Your task to perform on an android device: Open wifi settings Image 0: 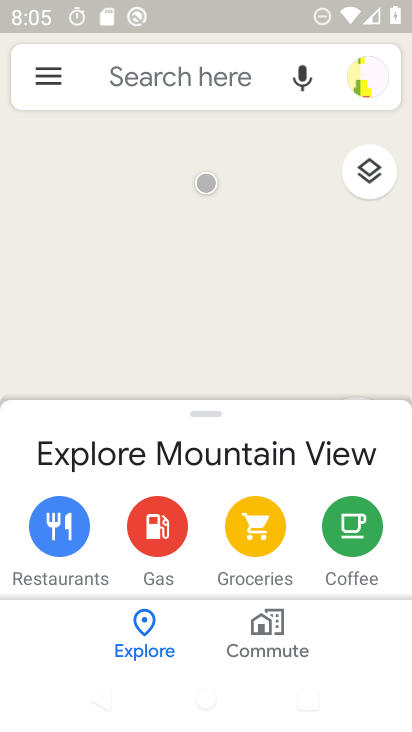
Step 0: press home button
Your task to perform on an android device: Open wifi settings Image 1: 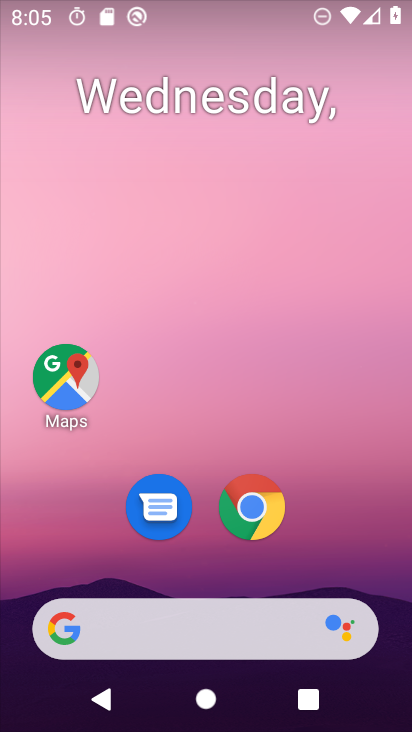
Step 1: drag from (258, 662) to (289, 237)
Your task to perform on an android device: Open wifi settings Image 2: 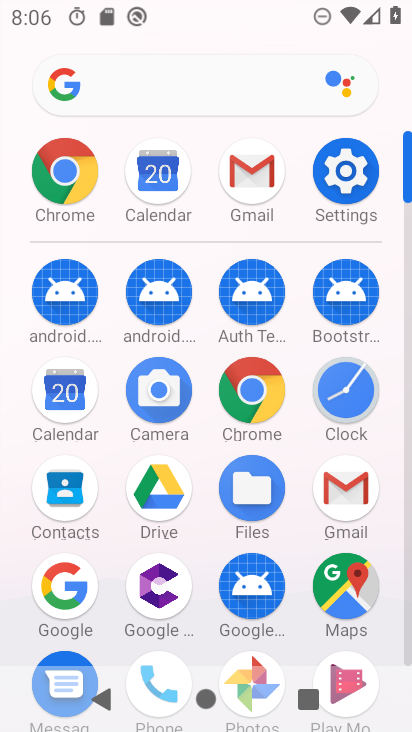
Step 2: click (340, 188)
Your task to perform on an android device: Open wifi settings Image 3: 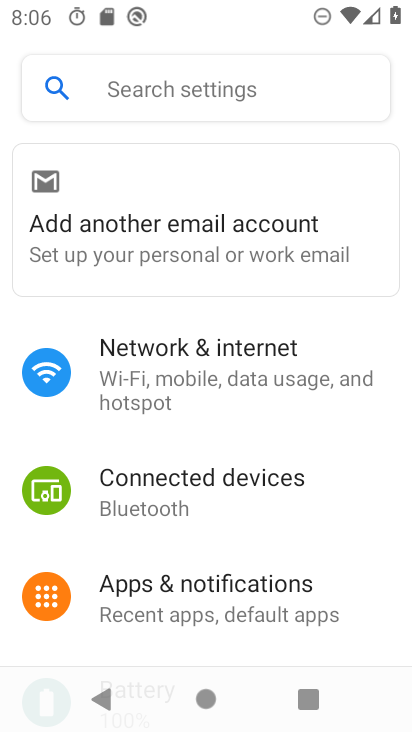
Step 3: click (148, 357)
Your task to perform on an android device: Open wifi settings Image 4: 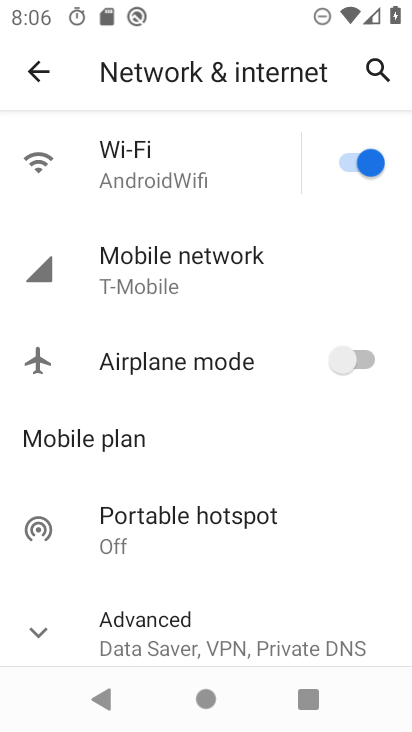
Step 4: click (166, 170)
Your task to perform on an android device: Open wifi settings Image 5: 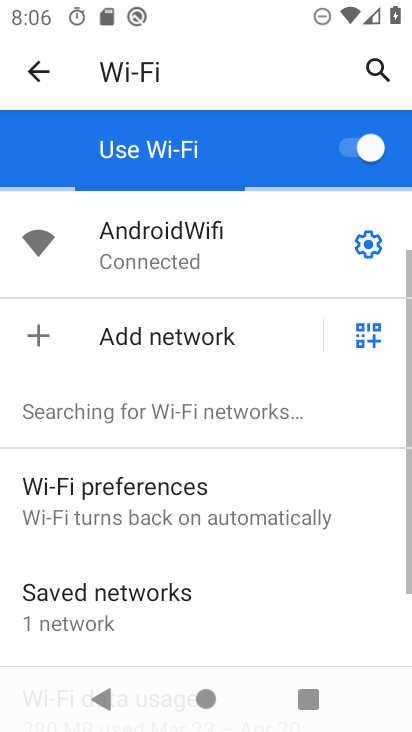
Step 5: task complete